Your task to perform on an android device: change keyboard looks Image 0: 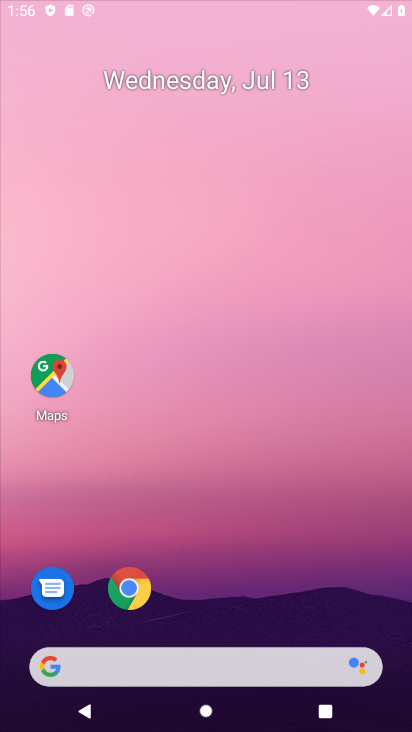
Step 0: click (227, 329)
Your task to perform on an android device: change keyboard looks Image 1: 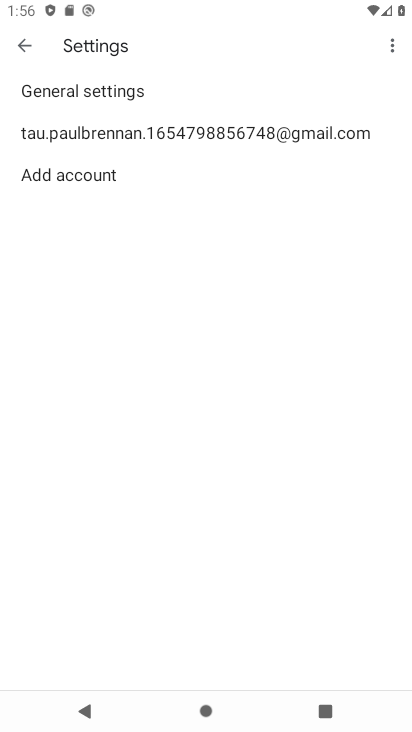
Step 1: press home button
Your task to perform on an android device: change keyboard looks Image 2: 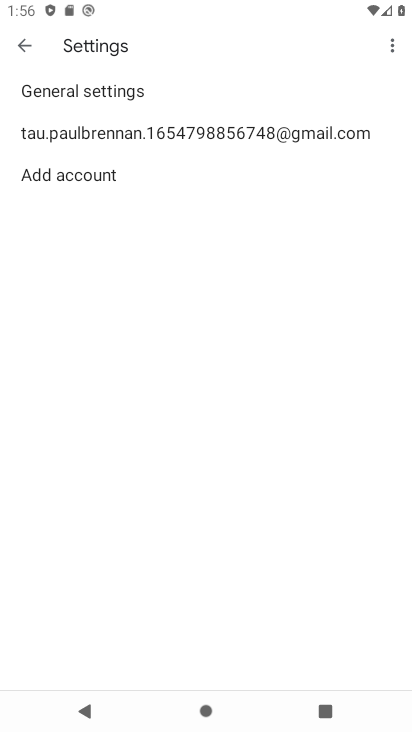
Step 2: drag from (209, 484) to (255, 167)
Your task to perform on an android device: change keyboard looks Image 3: 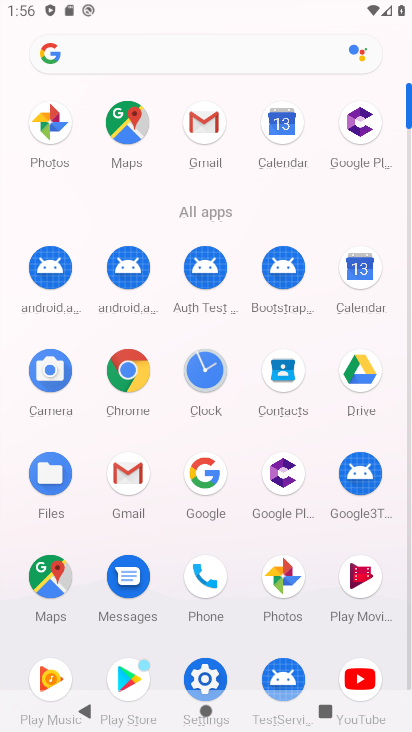
Step 3: click (203, 674)
Your task to perform on an android device: change keyboard looks Image 4: 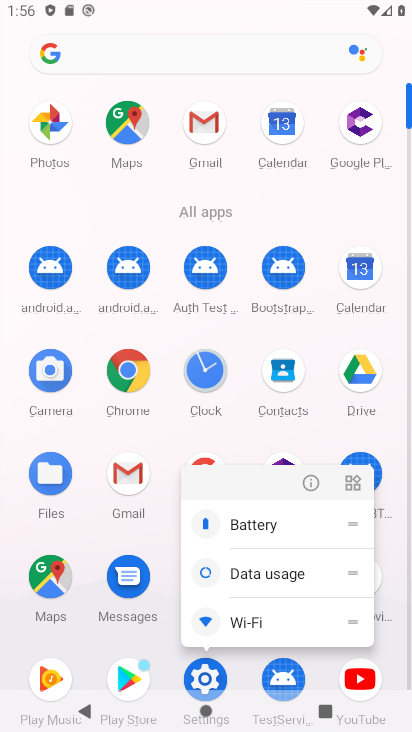
Step 4: click (305, 481)
Your task to perform on an android device: change keyboard looks Image 5: 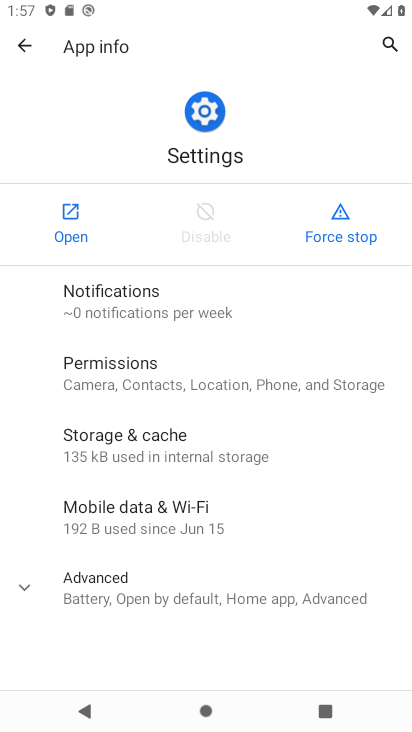
Step 5: click (62, 222)
Your task to perform on an android device: change keyboard looks Image 6: 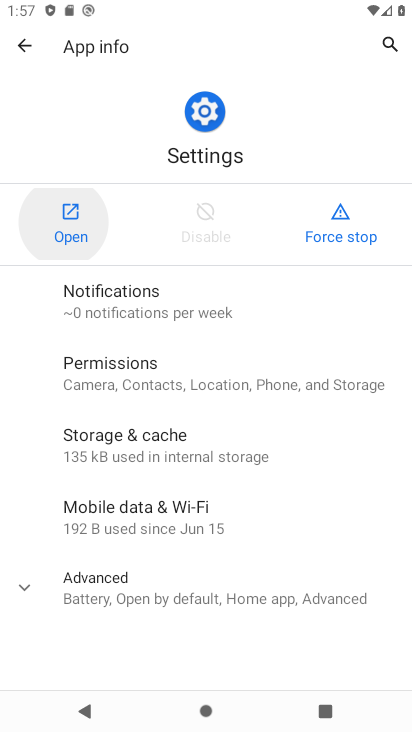
Step 6: click (63, 222)
Your task to perform on an android device: change keyboard looks Image 7: 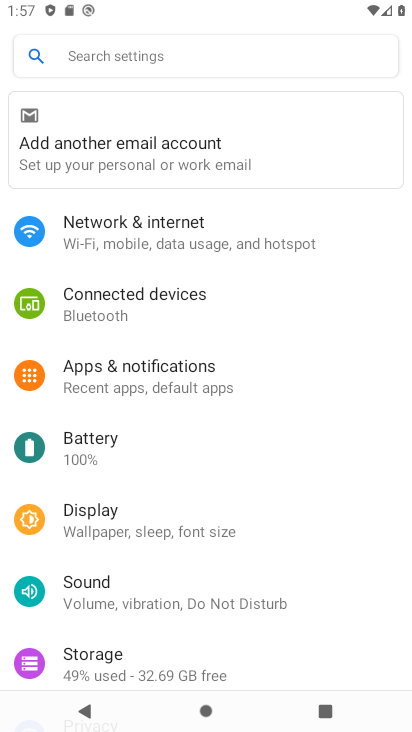
Step 7: drag from (196, 454) to (208, 237)
Your task to perform on an android device: change keyboard looks Image 8: 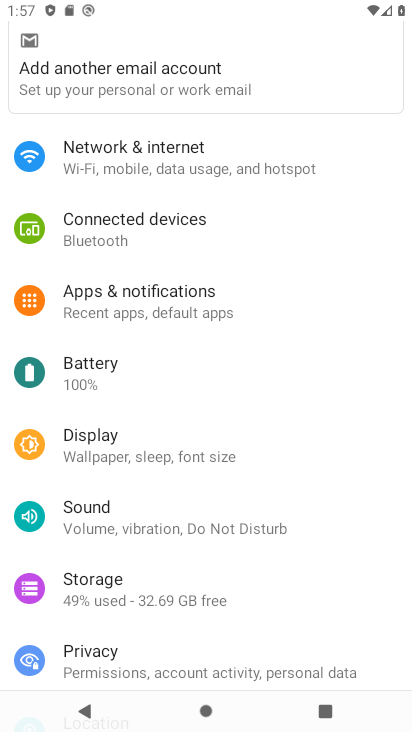
Step 8: drag from (188, 603) to (204, 197)
Your task to perform on an android device: change keyboard looks Image 9: 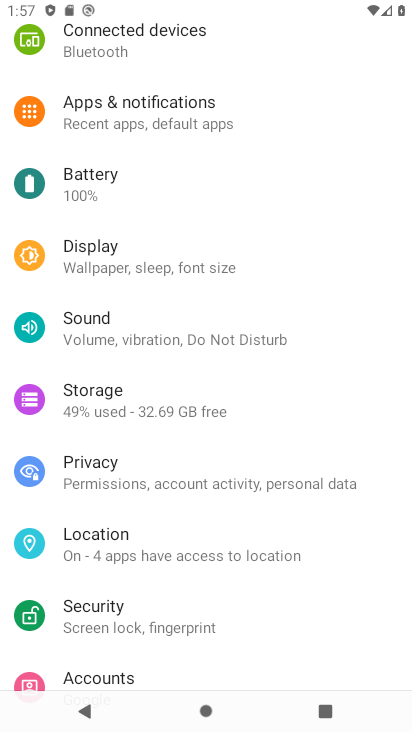
Step 9: drag from (159, 256) to (173, 706)
Your task to perform on an android device: change keyboard looks Image 10: 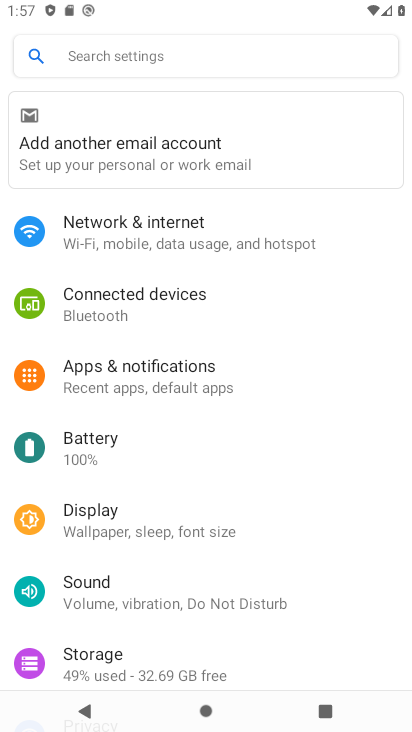
Step 10: drag from (201, 560) to (234, 133)
Your task to perform on an android device: change keyboard looks Image 11: 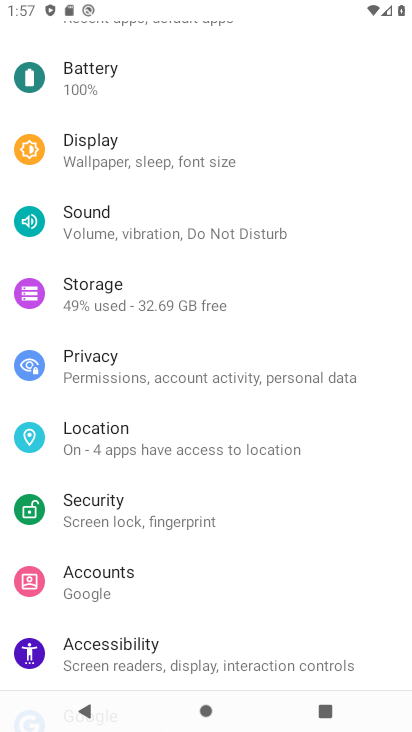
Step 11: drag from (169, 539) to (216, 170)
Your task to perform on an android device: change keyboard looks Image 12: 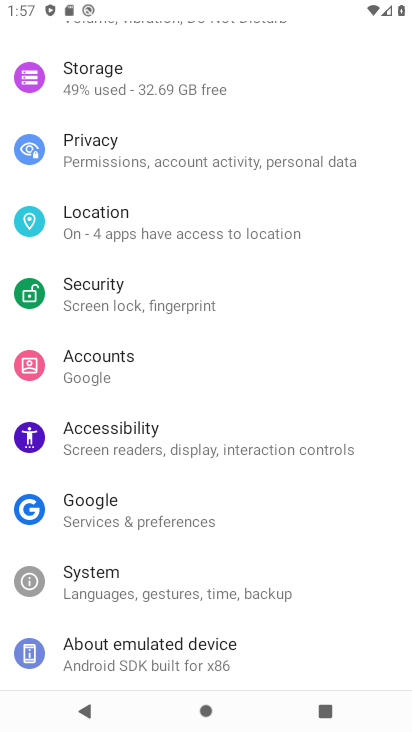
Step 12: click (134, 641)
Your task to perform on an android device: change keyboard looks Image 13: 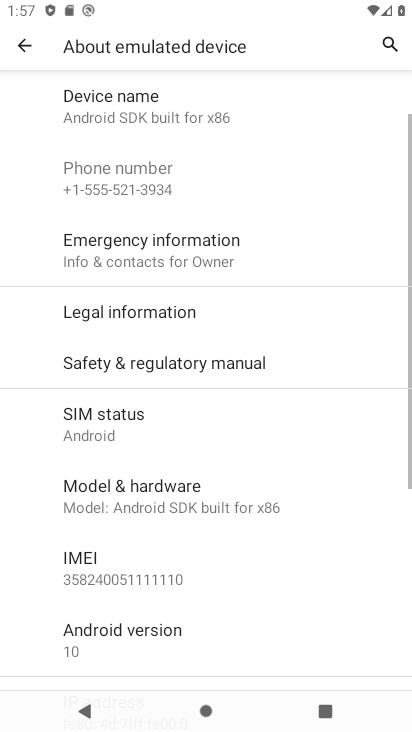
Step 13: click (31, 54)
Your task to perform on an android device: change keyboard looks Image 14: 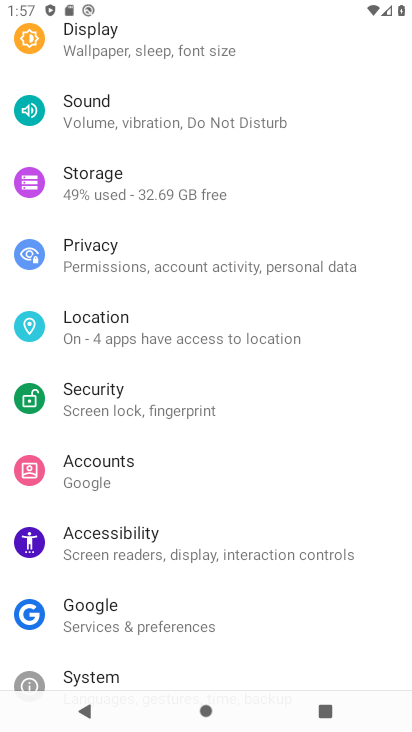
Step 14: click (116, 672)
Your task to perform on an android device: change keyboard looks Image 15: 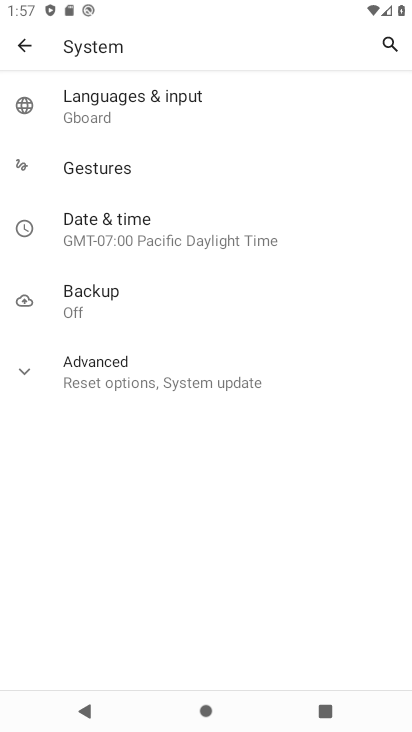
Step 15: click (151, 111)
Your task to perform on an android device: change keyboard looks Image 16: 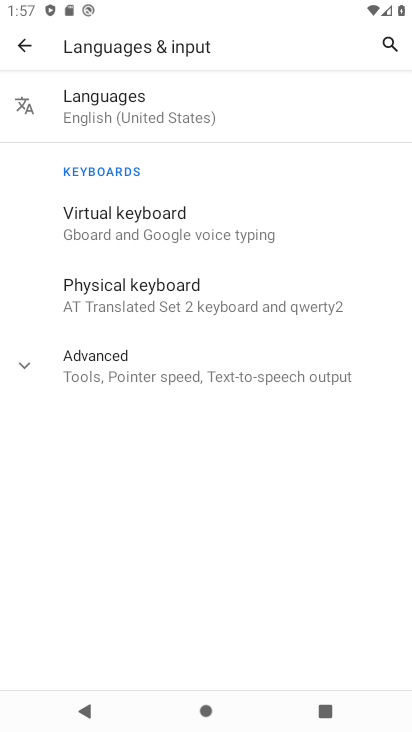
Step 16: click (172, 235)
Your task to perform on an android device: change keyboard looks Image 17: 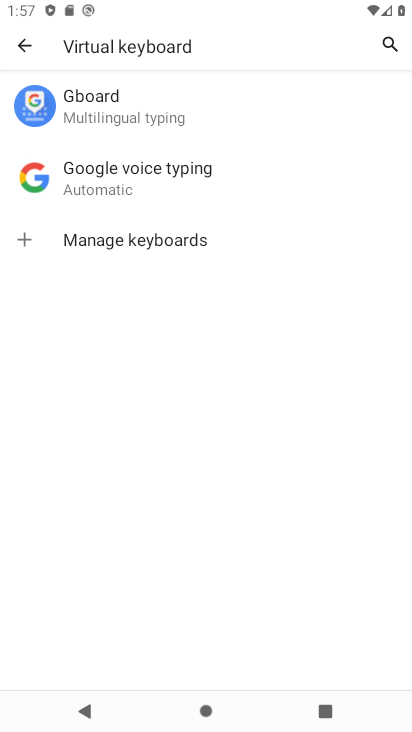
Step 17: click (177, 125)
Your task to perform on an android device: change keyboard looks Image 18: 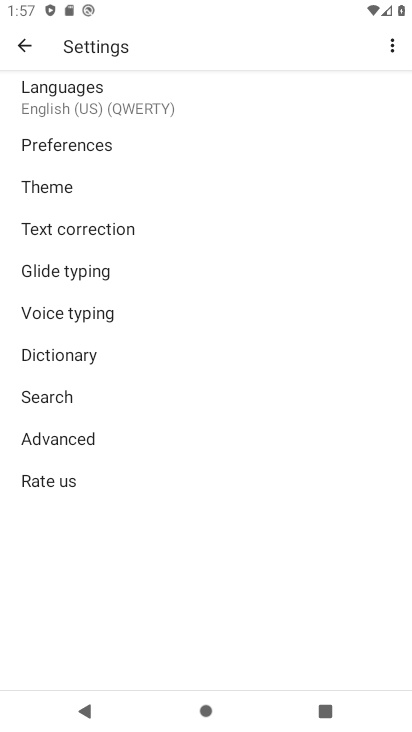
Step 18: click (61, 182)
Your task to perform on an android device: change keyboard looks Image 19: 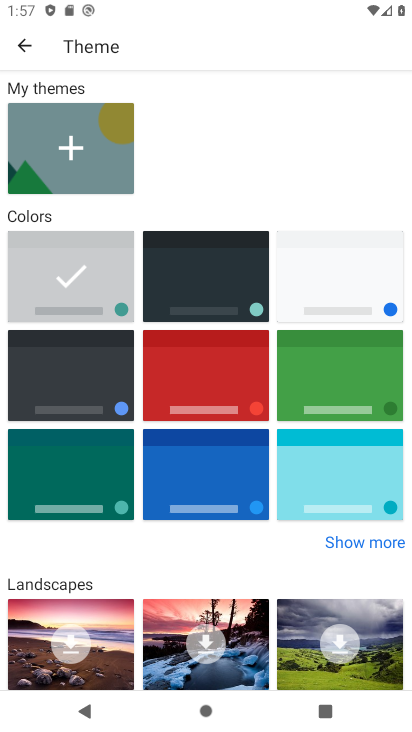
Step 19: click (217, 298)
Your task to perform on an android device: change keyboard looks Image 20: 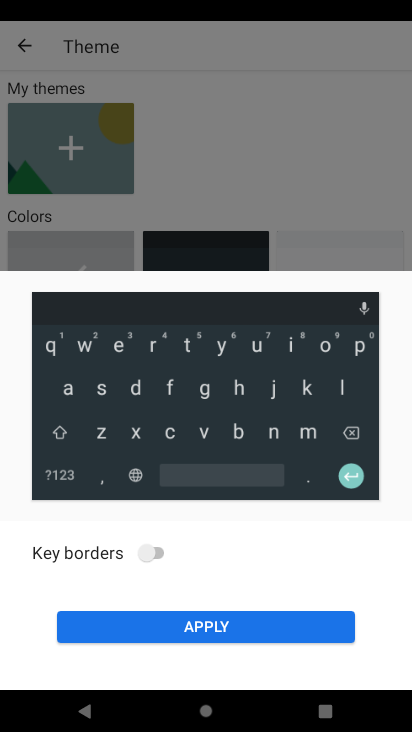
Step 20: click (229, 624)
Your task to perform on an android device: change keyboard looks Image 21: 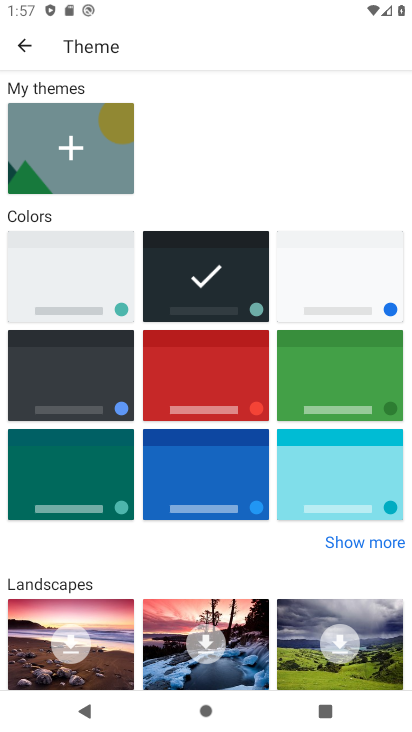
Step 21: task complete